Your task to perform on an android device: turn on airplane mode Image 0: 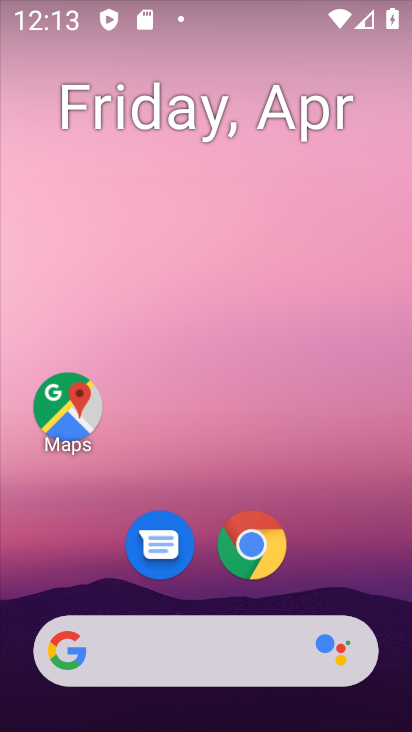
Step 0: drag from (344, 555) to (290, 69)
Your task to perform on an android device: turn on airplane mode Image 1: 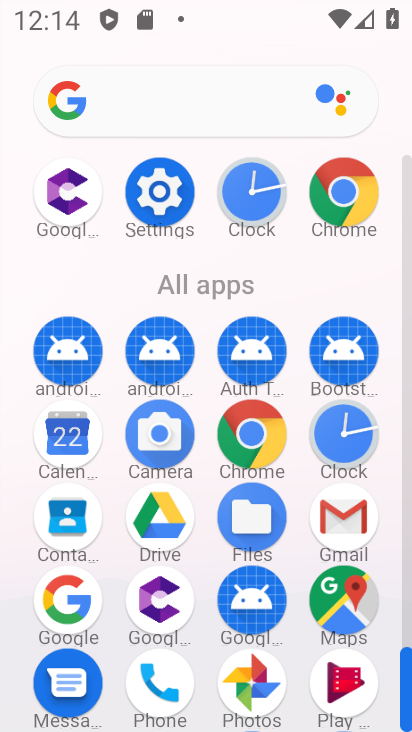
Step 1: click (169, 203)
Your task to perform on an android device: turn on airplane mode Image 2: 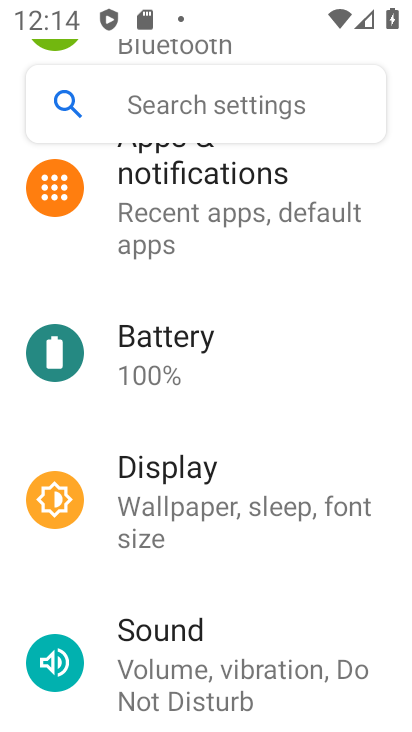
Step 2: drag from (237, 265) to (205, 626)
Your task to perform on an android device: turn on airplane mode Image 3: 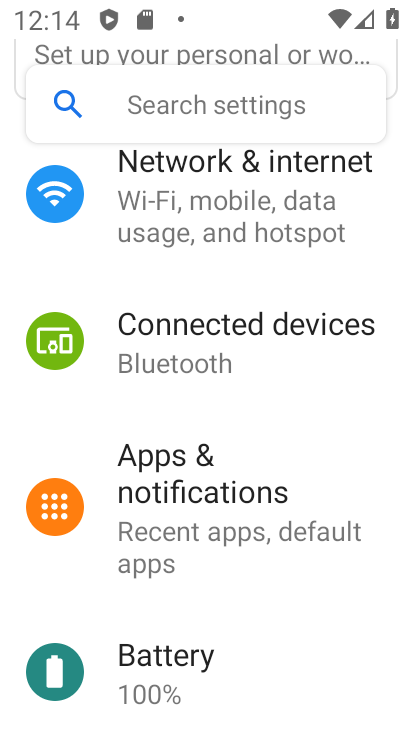
Step 3: click (225, 222)
Your task to perform on an android device: turn on airplane mode Image 4: 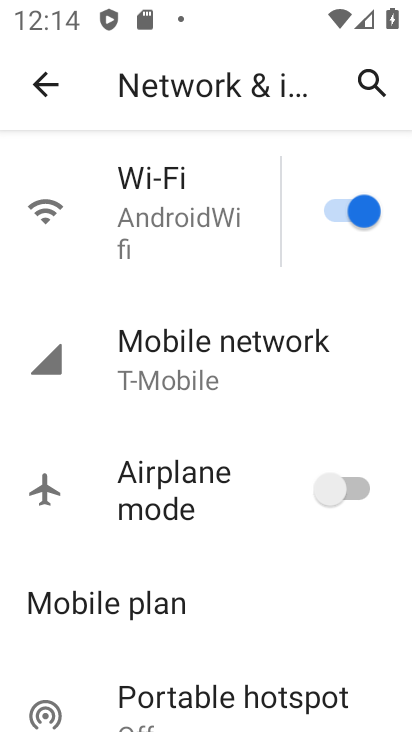
Step 4: click (353, 489)
Your task to perform on an android device: turn on airplane mode Image 5: 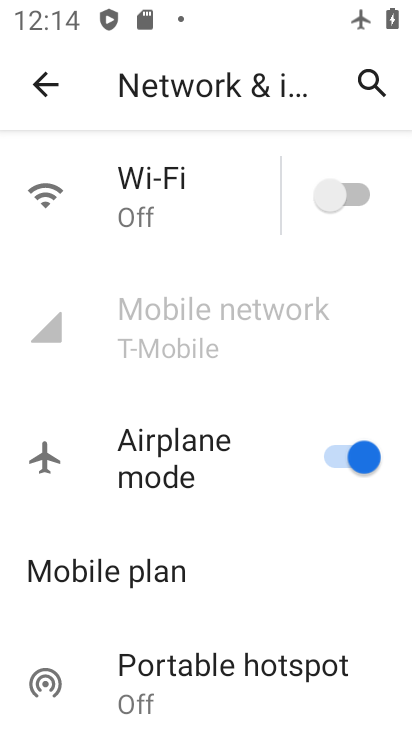
Step 5: task complete